Your task to perform on an android device: Check the settings for the Lyft app Image 0: 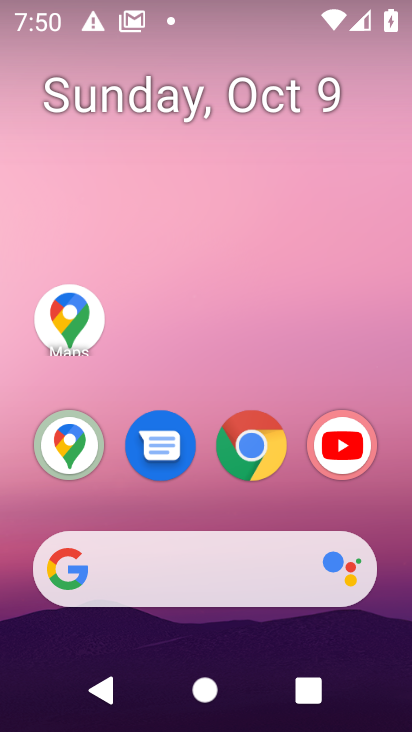
Step 0: drag from (187, 280) to (187, 64)
Your task to perform on an android device: Check the settings for the Lyft app Image 1: 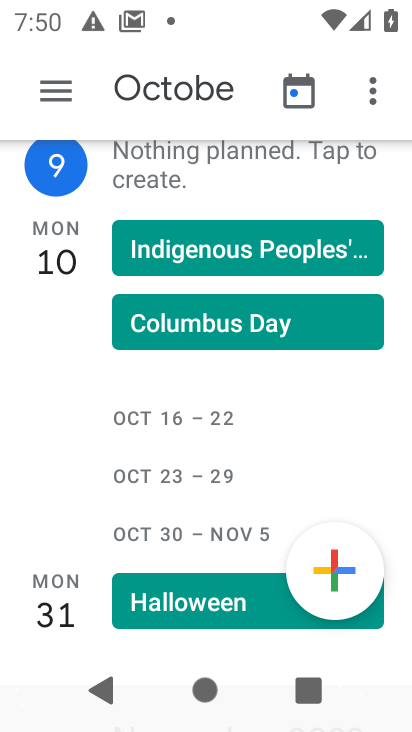
Step 1: press home button
Your task to perform on an android device: Check the settings for the Lyft app Image 2: 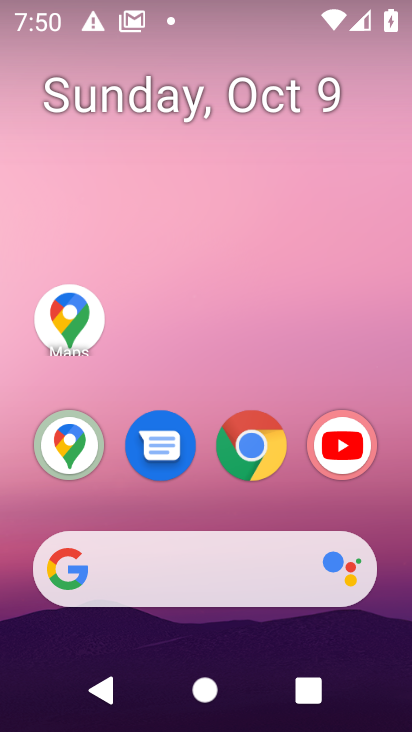
Step 2: drag from (197, 526) to (135, 166)
Your task to perform on an android device: Check the settings for the Lyft app Image 3: 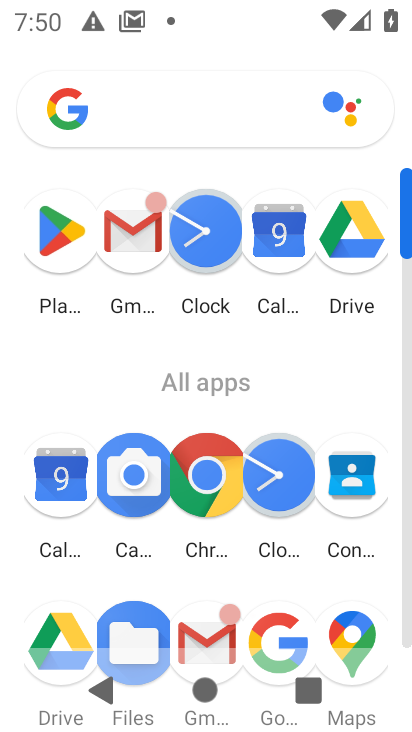
Step 3: click (267, 630)
Your task to perform on an android device: Check the settings for the Lyft app Image 4: 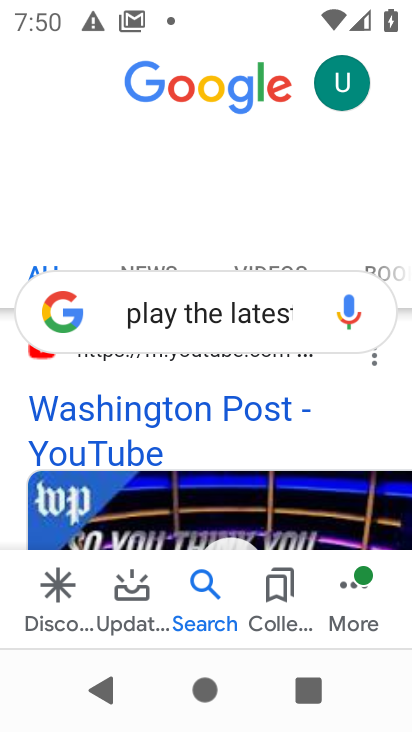
Step 4: type "Check the settings for the Lyft app"
Your task to perform on an android device: Check the settings for the Lyft app Image 5: 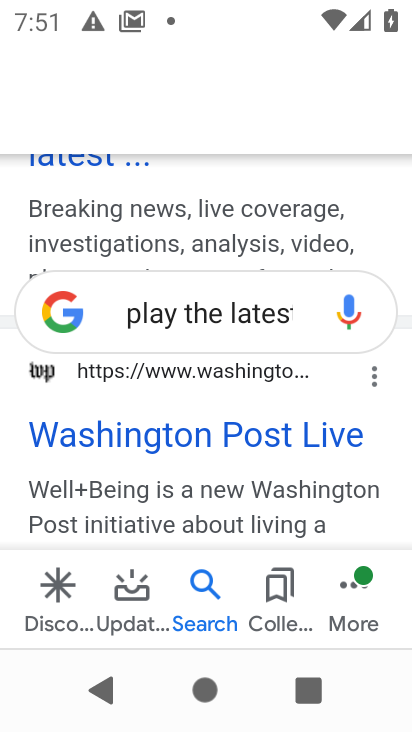
Step 5: drag from (127, 200) to (147, 583)
Your task to perform on an android device: Check the settings for the Lyft app Image 6: 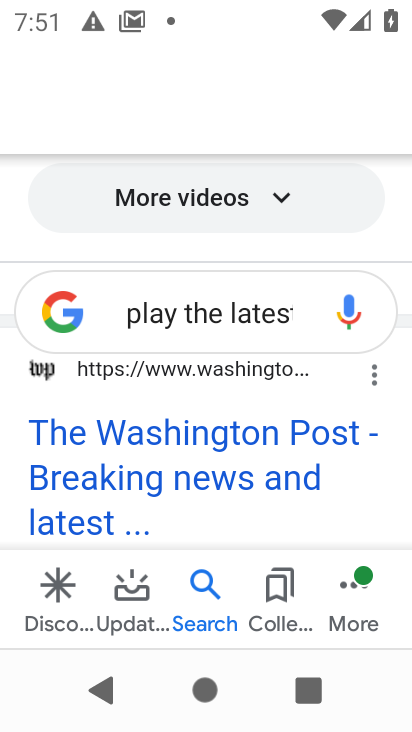
Step 6: drag from (169, 206) to (178, 551)
Your task to perform on an android device: Check the settings for the Lyft app Image 7: 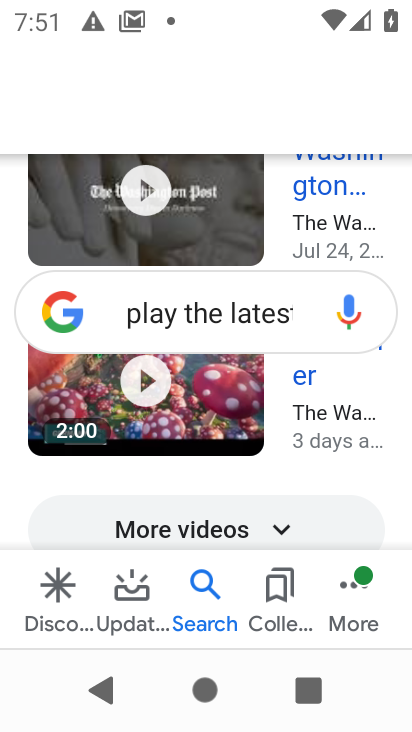
Step 7: drag from (205, 185) to (244, 474)
Your task to perform on an android device: Check the settings for the Lyft app Image 8: 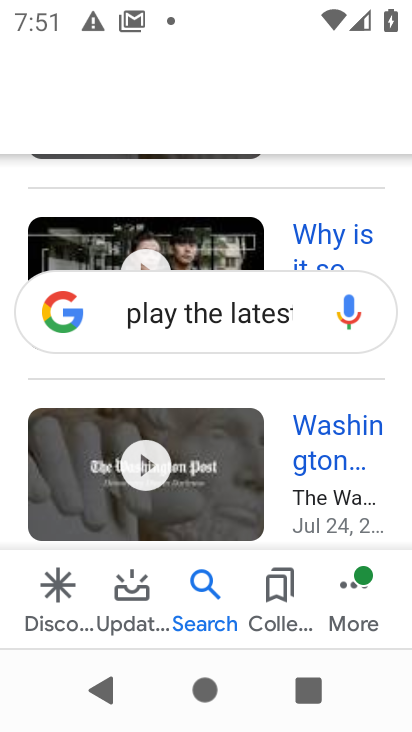
Step 8: click (97, 112)
Your task to perform on an android device: Check the settings for the Lyft app Image 9: 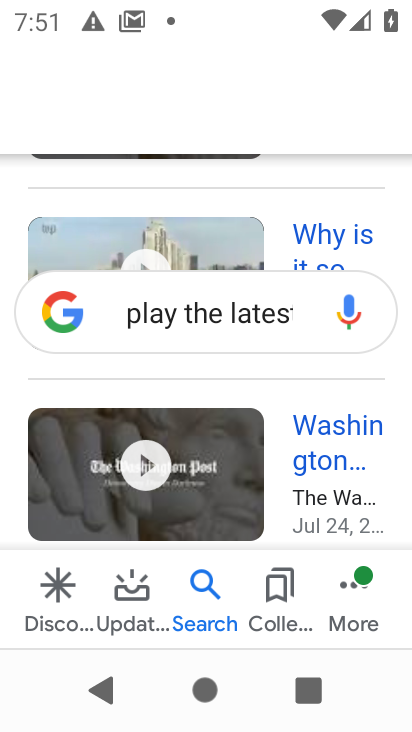
Step 9: click (200, 317)
Your task to perform on an android device: Check the settings for the Lyft app Image 10: 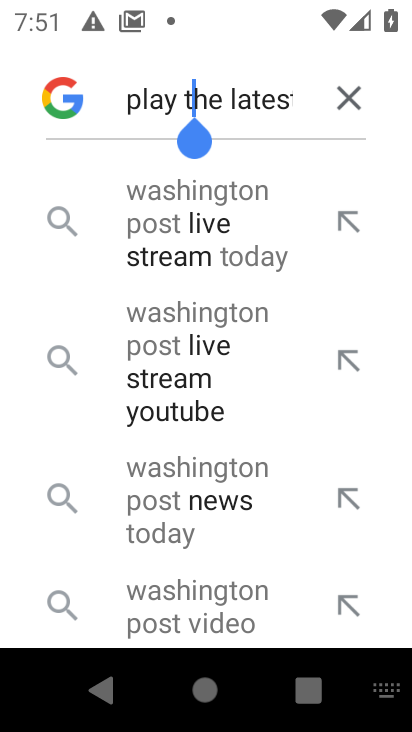
Step 10: click (345, 100)
Your task to perform on an android device: Check the settings for the Lyft app Image 11: 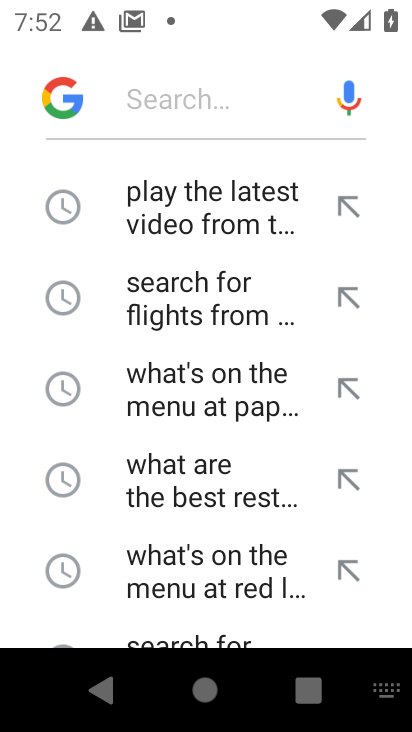
Step 11: type "Check the settings for the Lyft app"
Your task to perform on an android device: Check the settings for the Lyft app Image 12: 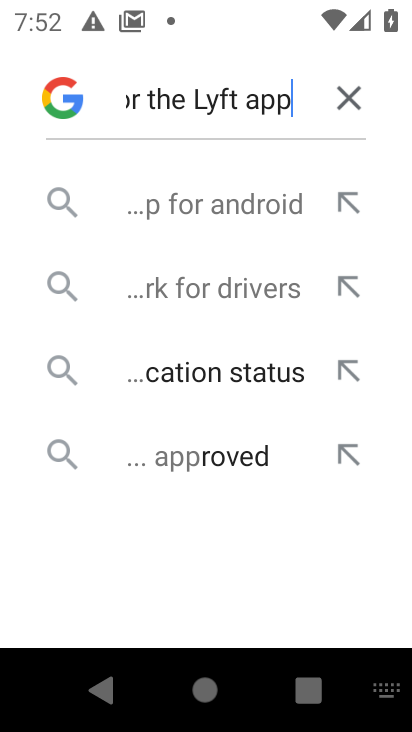
Step 12: click (164, 209)
Your task to perform on an android device: Check the settings for the Lyft app Image 13: 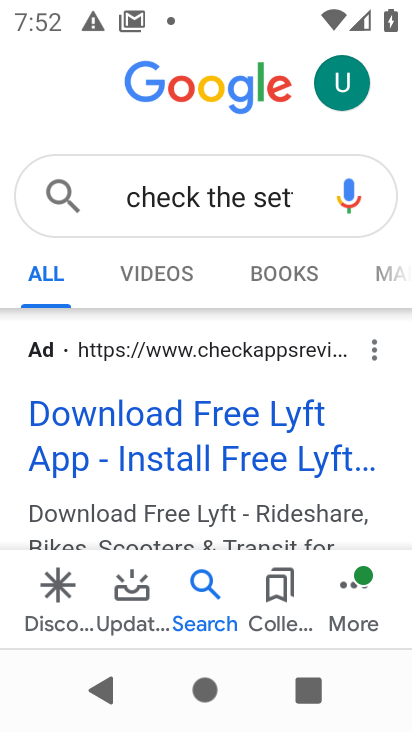
Step 13: click (180, 468)
Your task to perform on an android device: Check the settings for the Lyft app Image 14: 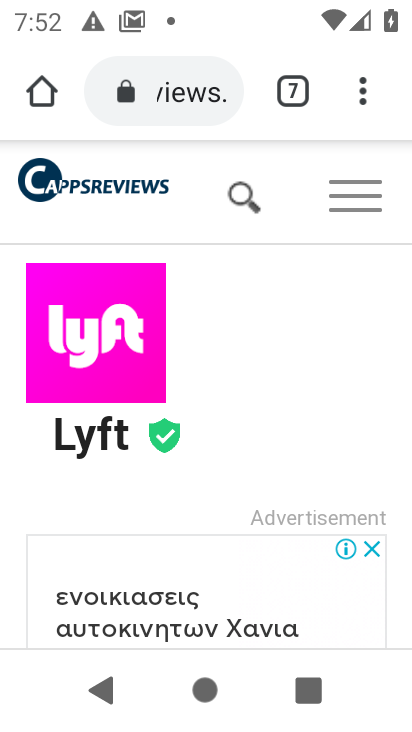
Step 14: task complete